Your task to perform on an android device: toggle pop-ups in chrome Image 0: 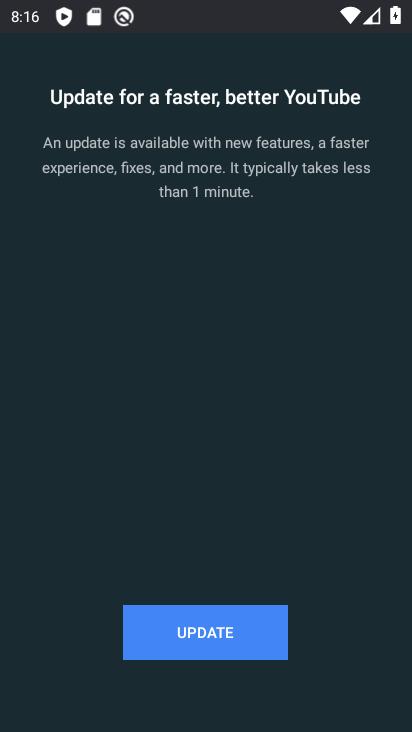
Step 0: press back button
Your task to perform on an android device: toggle pop-ups in chrome Image 1: 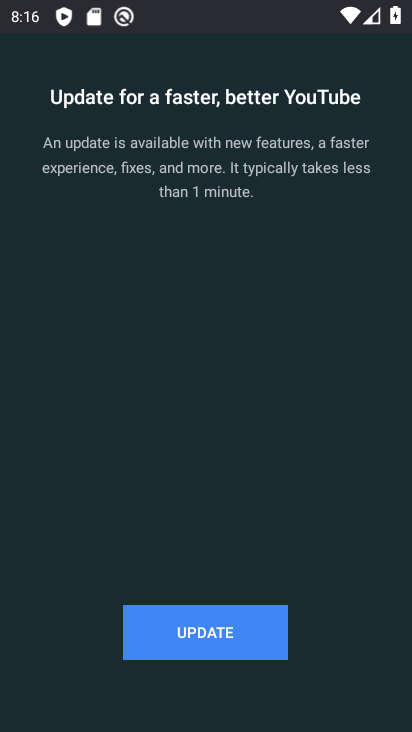
Step 1: press back button
Your task to perform on an android device: toggle pop-ups in chrome Image 2: 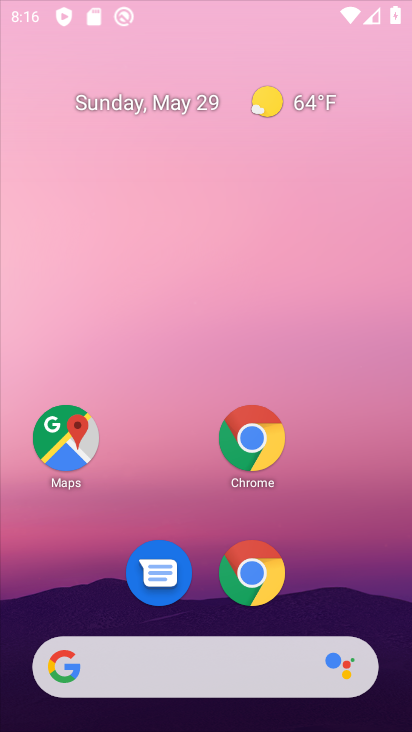
Step 2: press back button
Your task to perform on an android device: toggle pop-ups in chrome Image 3: 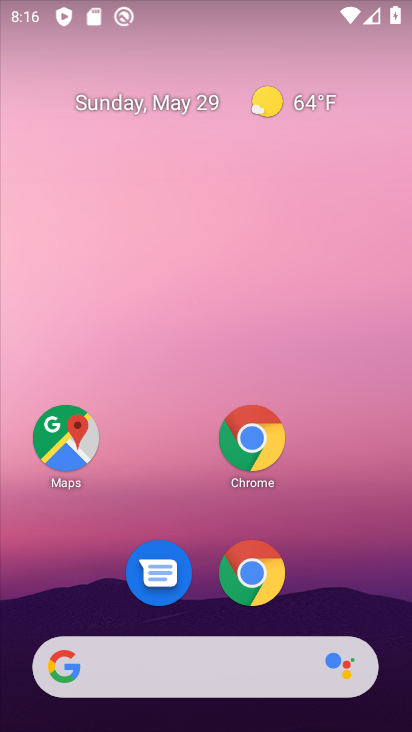
Step 3: drag from (221, 628) to (227, 77)
Your task to perform on an android device: toggle pop-ups in chrome Image 4: 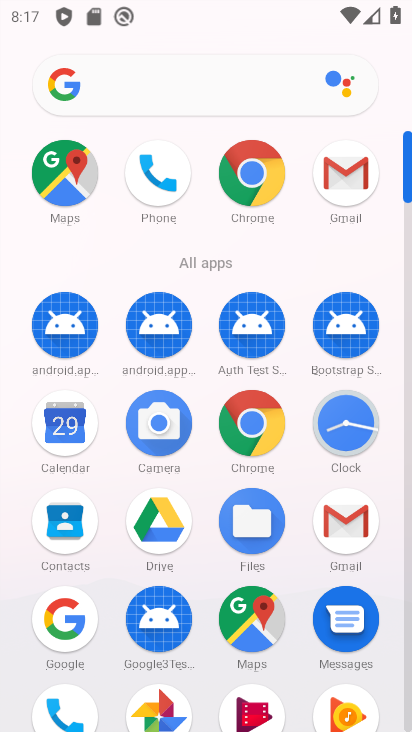
Step 4: click (244, 177)
Your task to perform on an android device: toggle pop-ups in chrome Image 5: 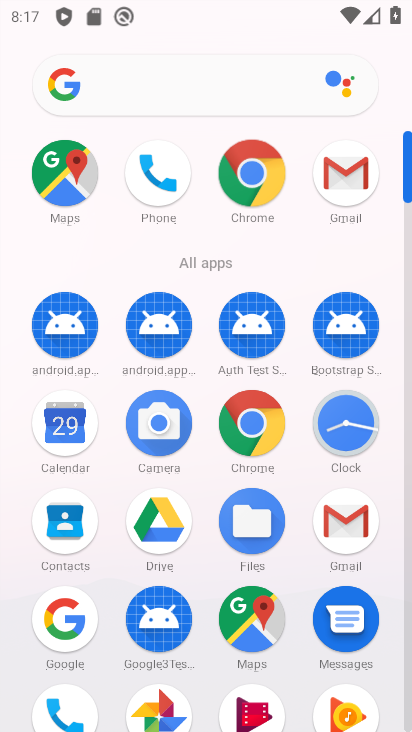
Step 5: click (253, 178)
Your task to perform on an android device: toggle pop-ups in chrome Image 6: 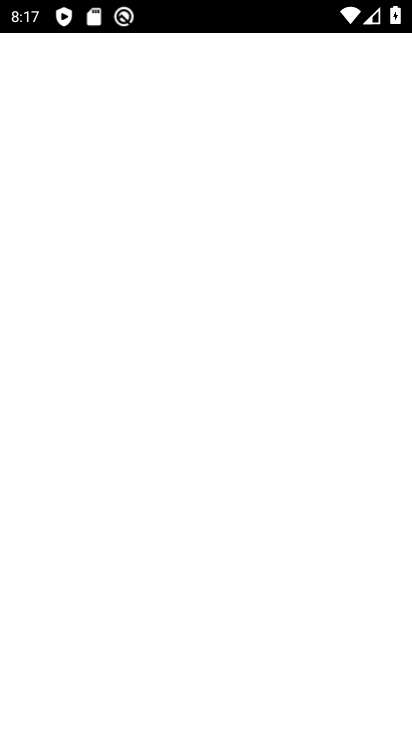
Step 6: click (254, 178)
Your task to perform on an android device: toggle pop-ups in chrome Image 7: 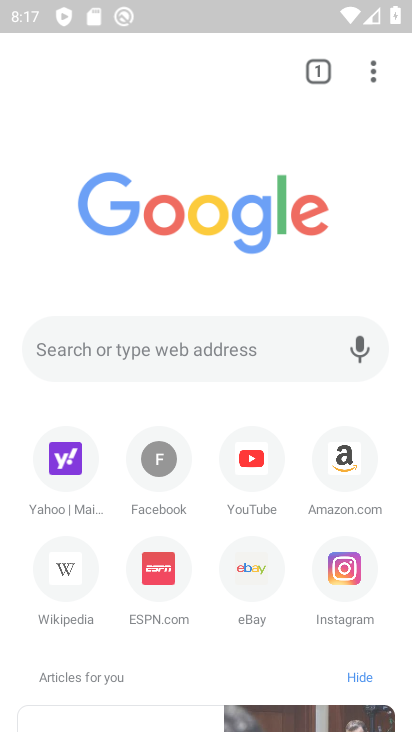
Step 7: click (310, 188)
Your task to perform on an android device: toggle pop-ups in chrome Image 8: 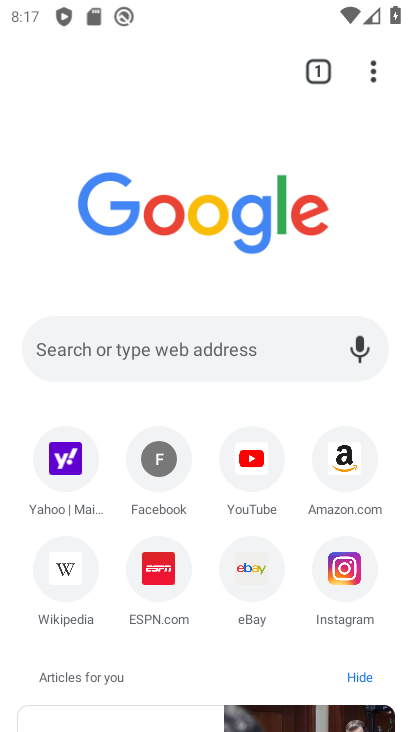
Step 8: press back button
Your task to perform on an android device: toggle pop-ups in chrome Image 9: 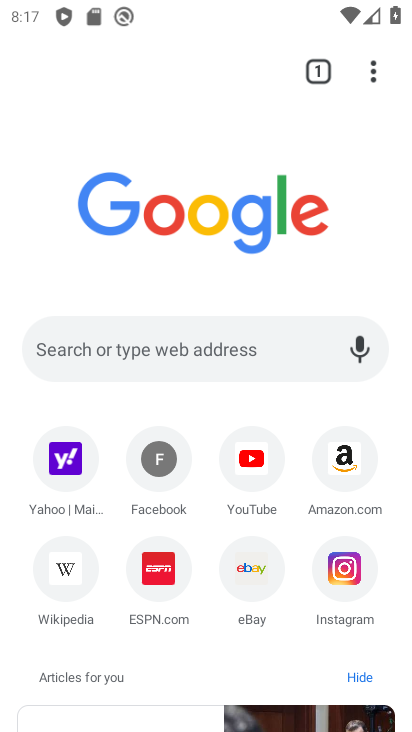
Step 9: press back button
Your task to perform on an android device: toggle pop-ups in chrome Image 10: 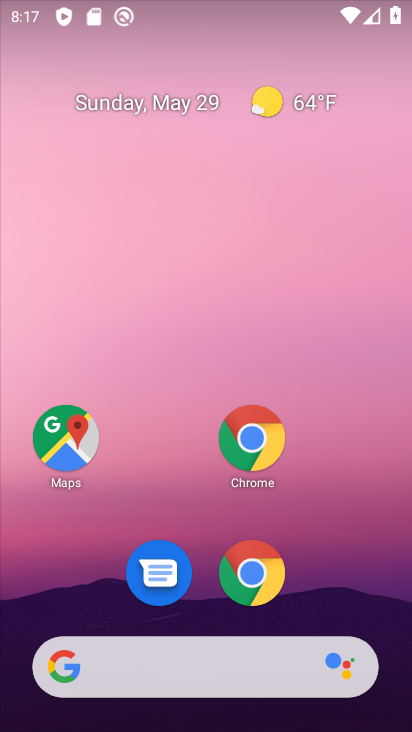
Step 10: click (245, 573)
Your task to perform on an android device: toggle pop-ups in chrome Image 11: 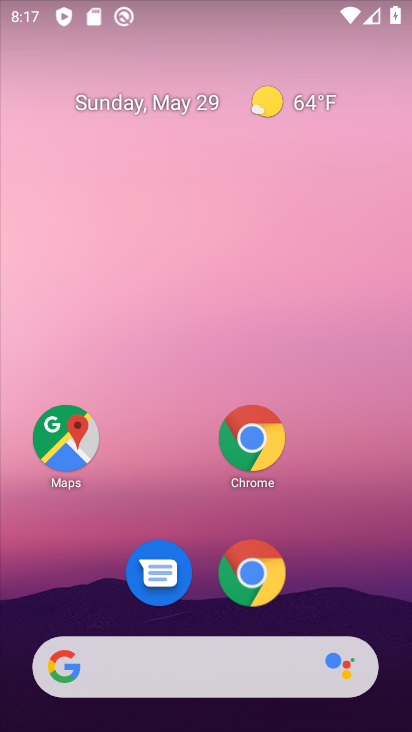
Step 11: click (245, 573)
Your task to perform on an android device: toggle pop-ups in chrome Image 12: 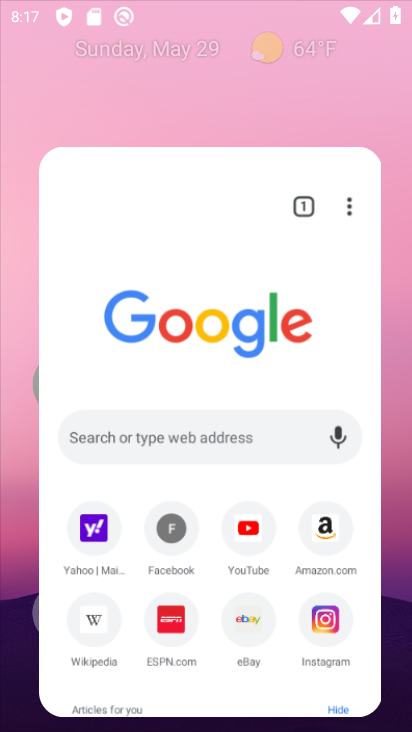
Step 12: click (245, 573)
Your task to perform on an android device: toggle pop-ups in chrome Image 13: 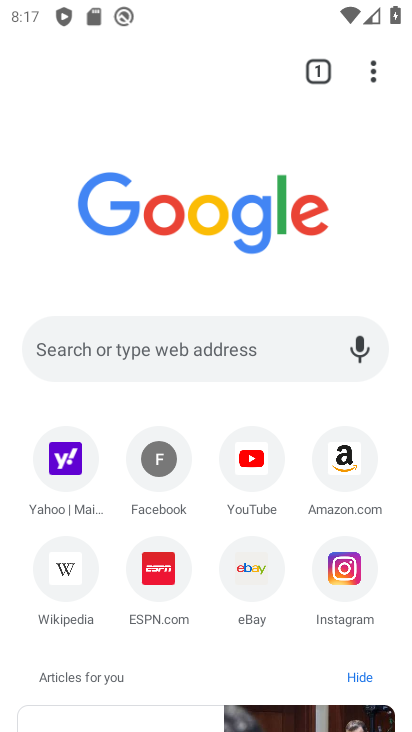
Step 13: drag from (372, 77) to (105, 605)
Your task to perform on an android device: toggle pop-ups in chrome Image 14: 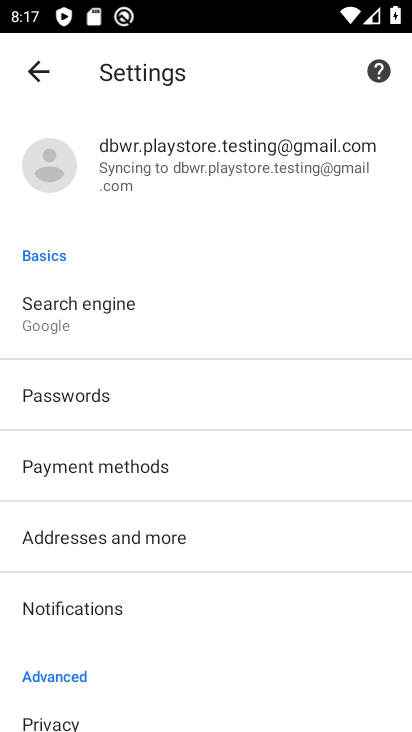
Step 14: drag from (51, 578) to (100, 229)
Your task to perform on an android device: toggle pop-ups in chrome Image 15: 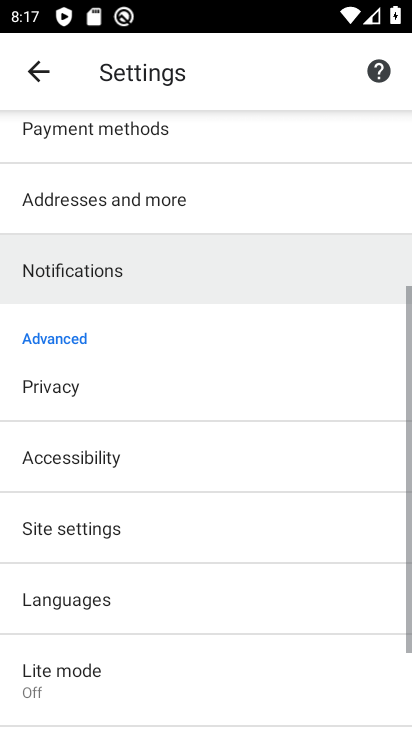
Step 15: drag from (112, 536) to (150, 216)
Your task to perform on an android device: toggle pop-ups in chrome Image 16: 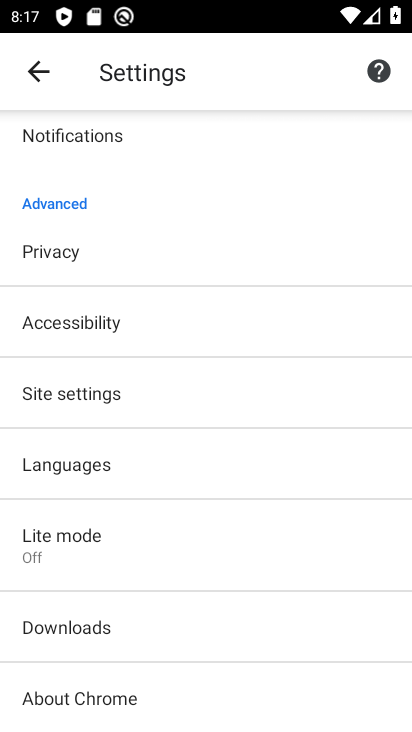
Step 16: click (55, 386)
Your task to perform on an android device: toggle pop-ups in chrome Image 17: 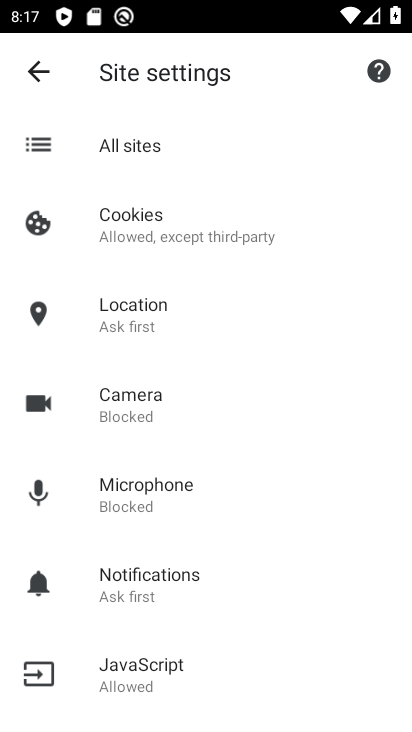
Step 17: drag from (153, 509) to (115, 119)
Your task to perform on an android device: toggle pop-ups in chrome Image 18: 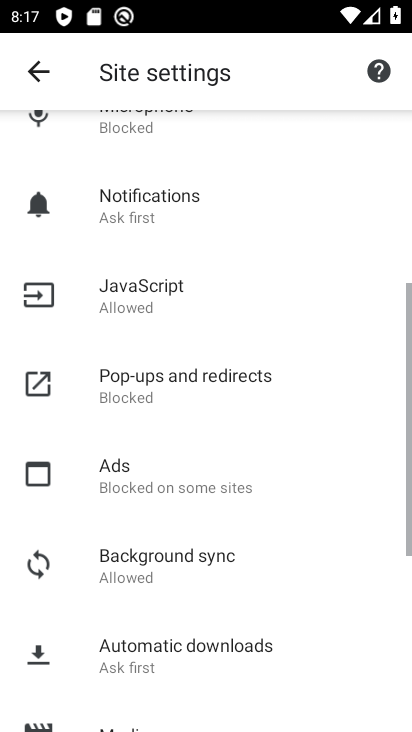
Step 18: click (131, 384)
Your task to perform on an android device: toggle pop-ups in chrome Image 19: 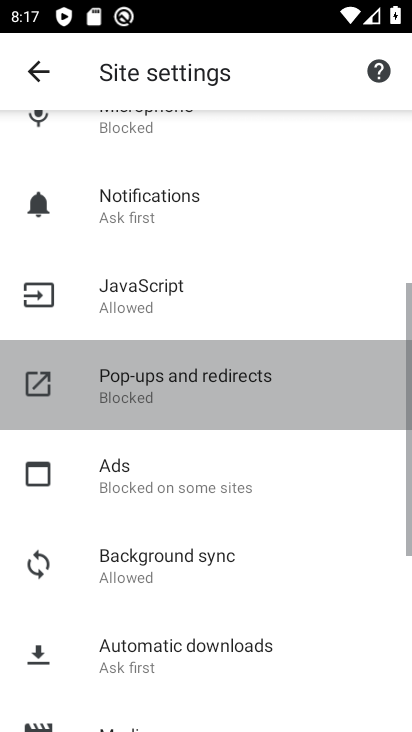
Step 19: click (131, 384)
Your task to perform on an android device: toggle pop-ups in chrome Image 20: 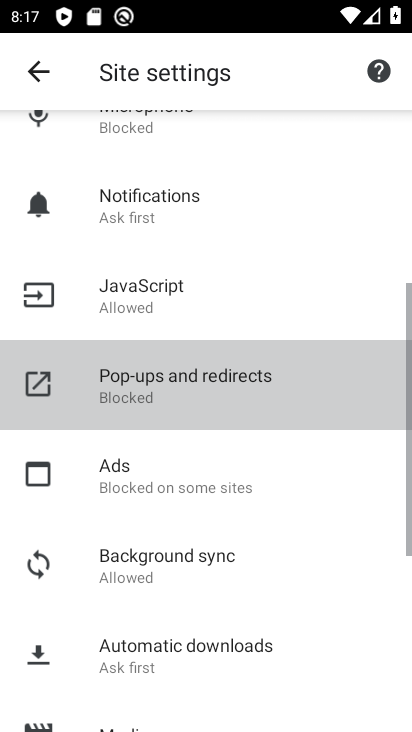
Step 20: click (131, 384)
Your task to perform on an android device: toggle pop-ups in chrome Image 21: 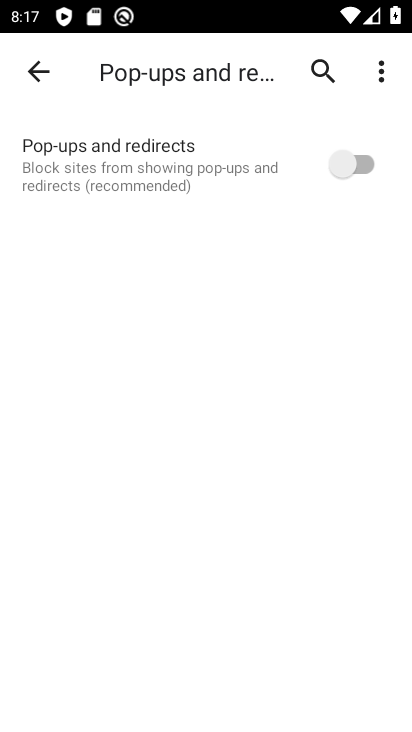
Step 21: click (346, 155)
Your task to perform on an android device: toggle pop-ups in chrome Image 22: 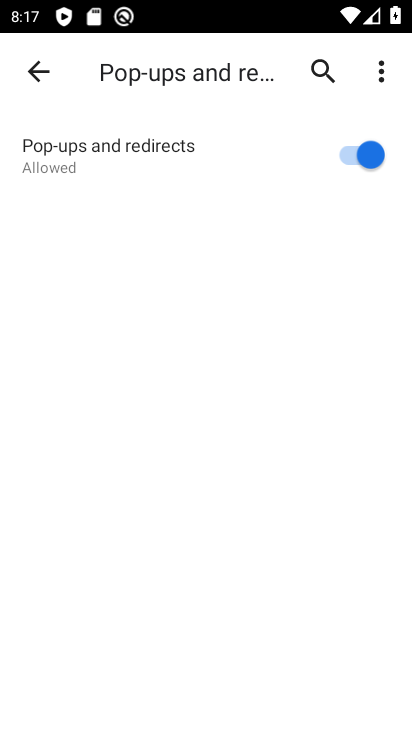
Step 22: task complete